Your task to perform on an android device: Open network settings Image 0: 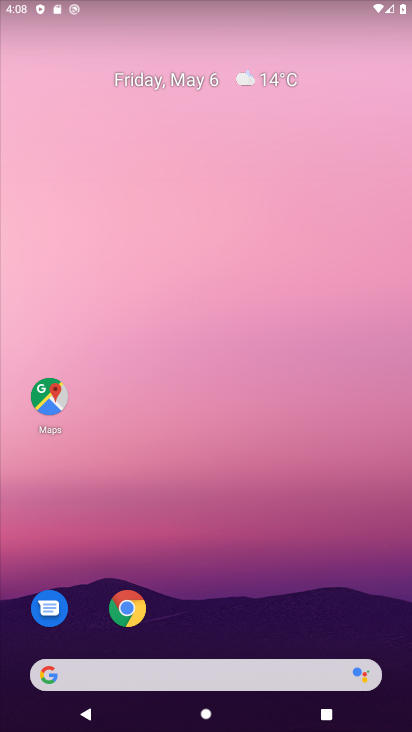
Step 0: drag from (214, 604) to (303, 148)
Your task to perform on an android device: Open network settings Image 1: 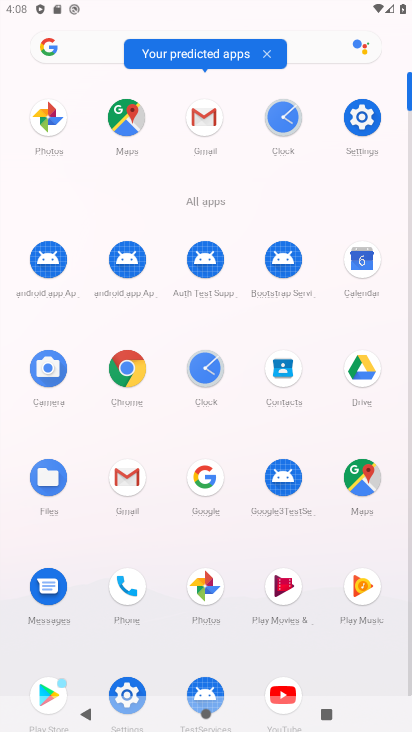
Step 1: click (129, 688)
Your task to perform on an android device: Open network settings Image 2: 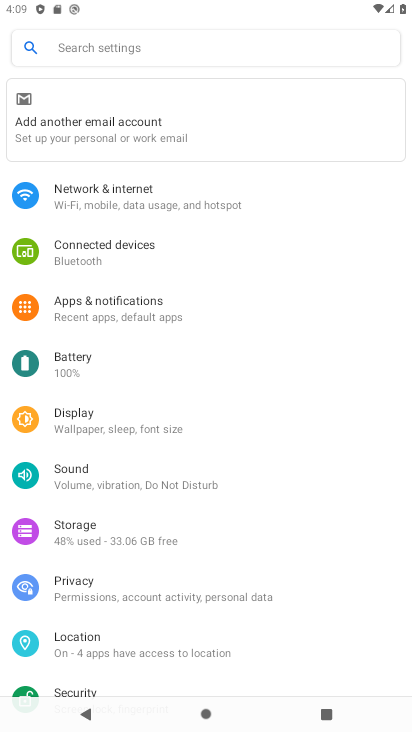
Step 2: click (146, 204)
Your task to perform on an android device: Open network settings Image 3: 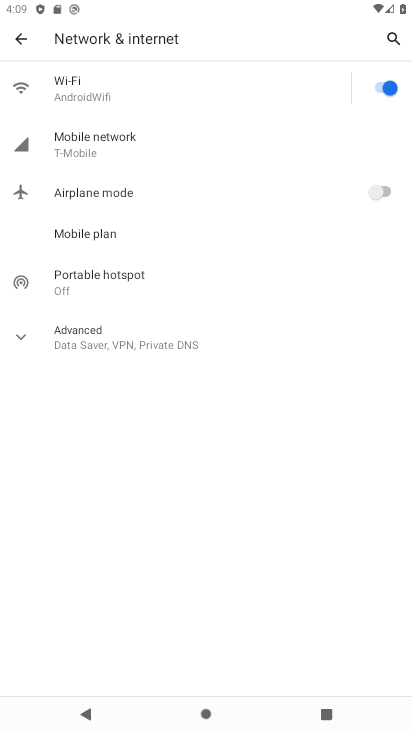
Step 3: click (153, 150)
Your task to perform on an android device: Open network settings Image 4: 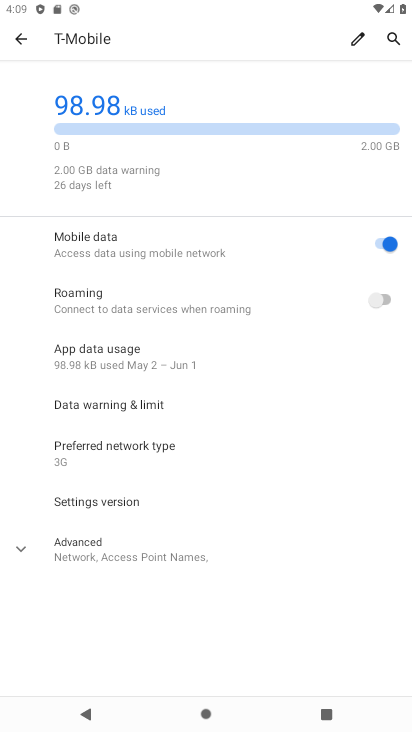
Step 4: task complete